Your task to perform on an android device: Check the news Image 0: 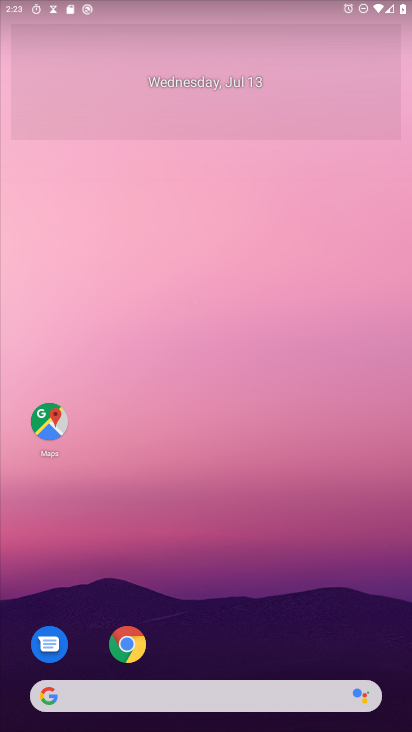
Step 0: click (173, 695)
Your task to perform on an android device: Check the news Image 1: 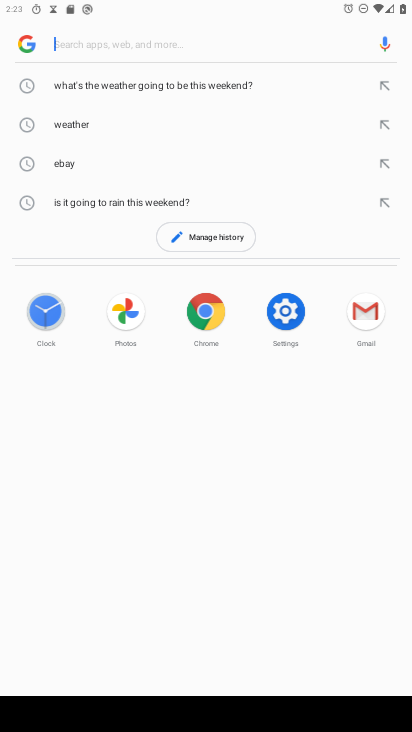
Step 1: type "news"
Your task to perform on an android device: Check the news Image 2: 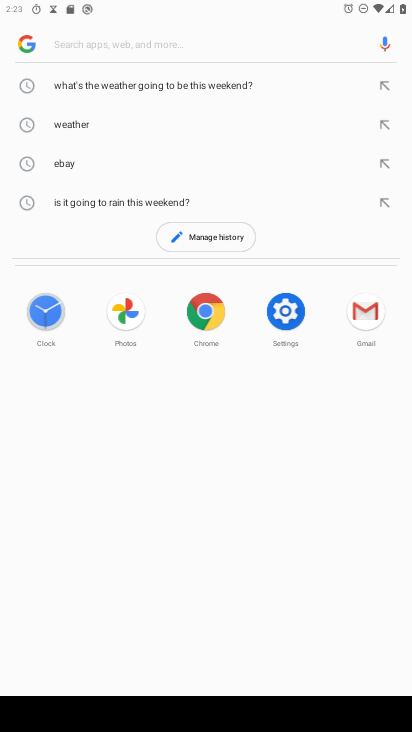
Step 2: click (150, 46)
Your task to perform on an android device: Check the news Image 3: 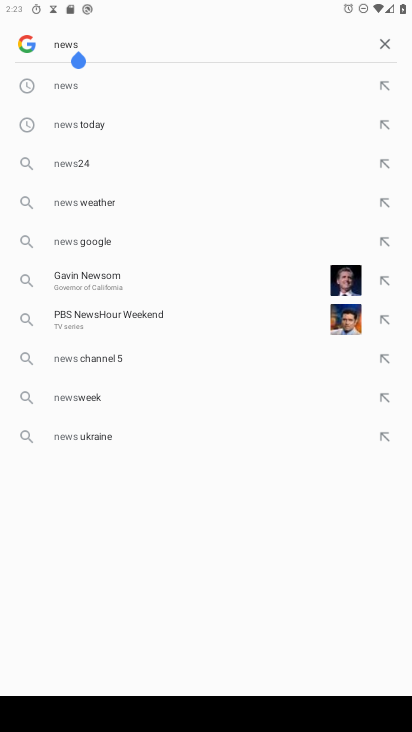
Step 3: press enter
Your task to perform on an android device: Check the news Image 4: 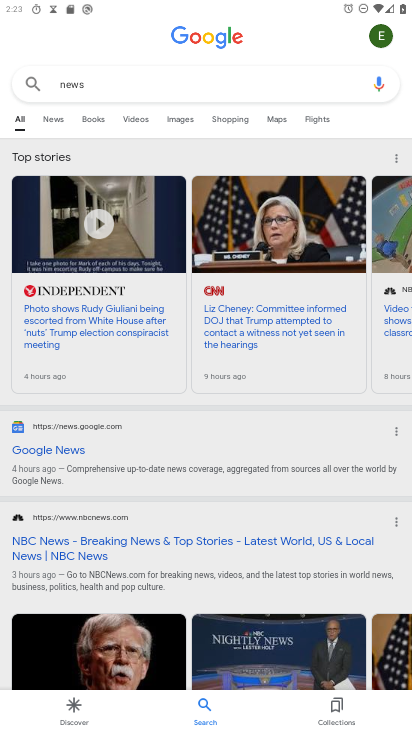
Step 4: task complete